Your task to perform on an android device: Turn off the flashlight Image 0: 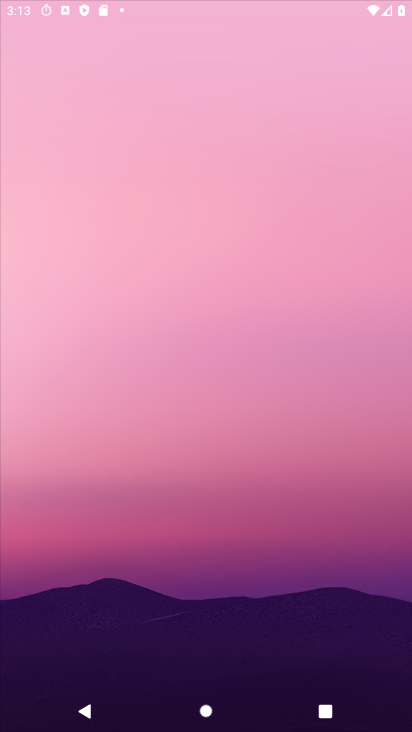
Step 0: drag from (340, 580) to (380, 161)
Your task to perform on an android device: Turn off the flashlight Image 1: 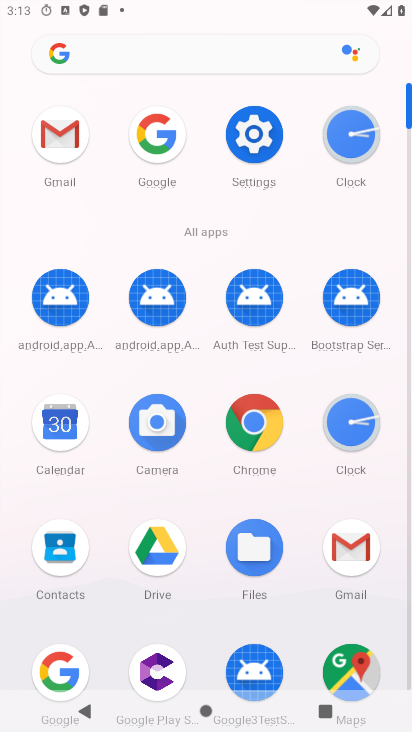
Step 1: click (248, 134)
Your task to perform on an android device: Turn off the flashlight Image 2: 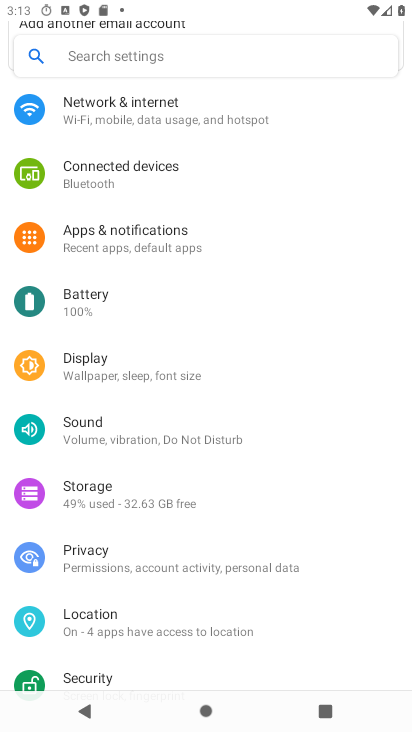
Step 2: click (215, 61)
Your task to perform on an android device: Turn off the flashlight Image 3: 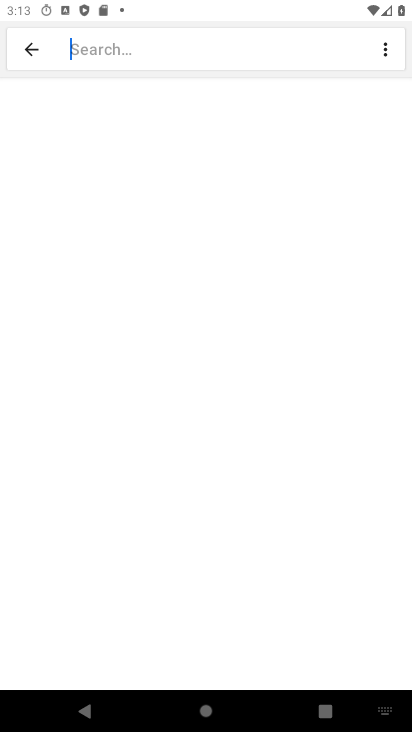
Step 3: type "flash"
Your task to perform on an android device: Turn off the flashlight Image 4: 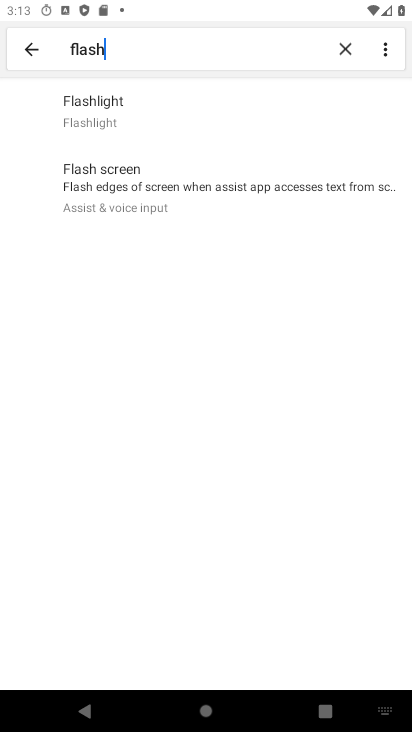
Step 4: task complete